Your task to perform on an android device: Go to Maps Image 0: 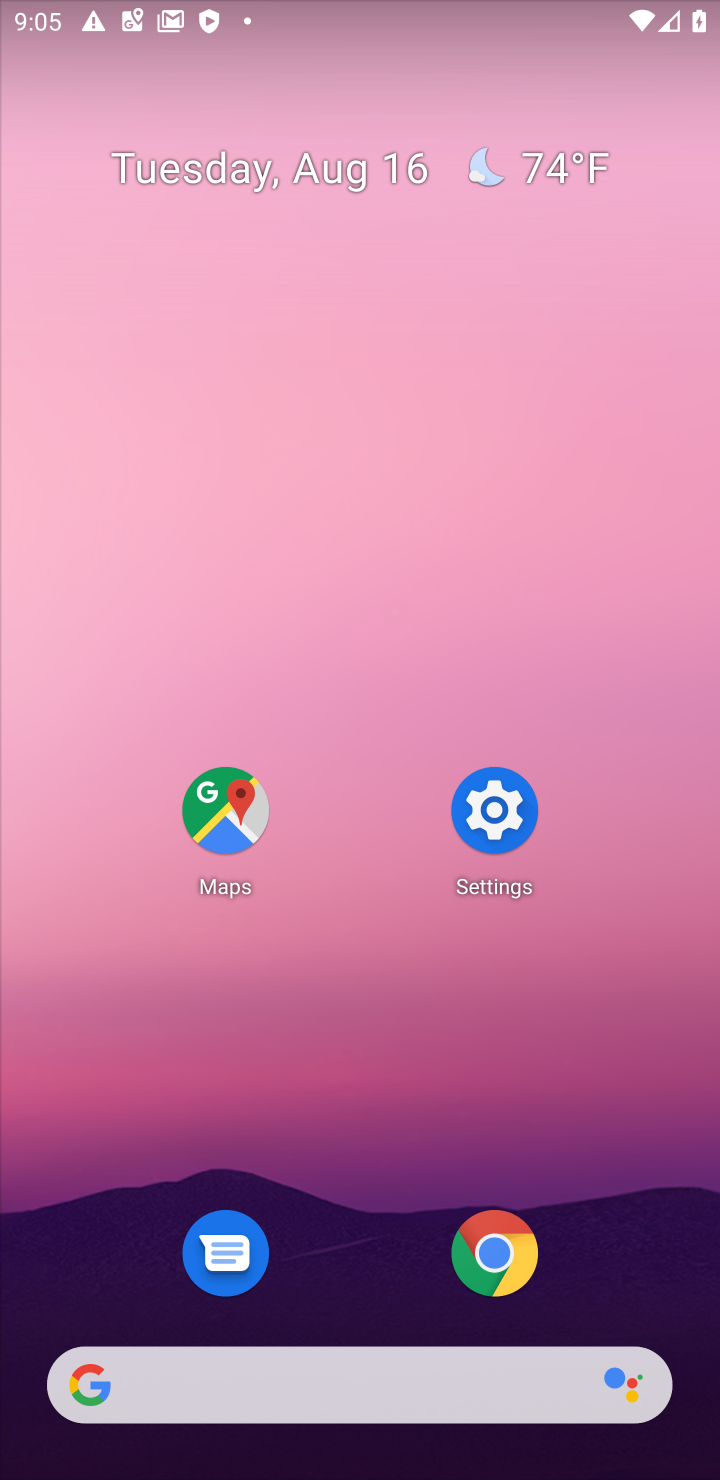
Step 0: click (216, 821)
Your task to perform on an android device: Go to Maps Image 1: 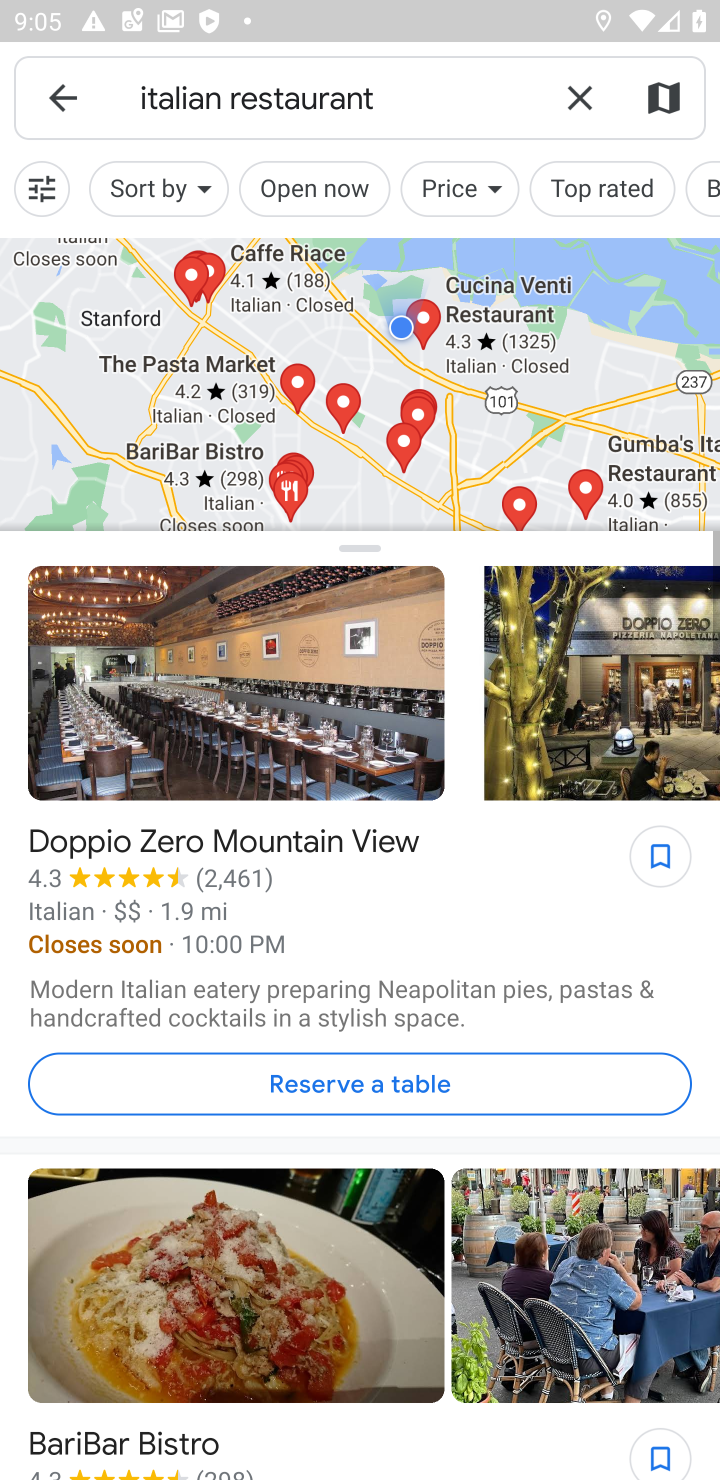
Step 1: click (576, 86)
Your task to perform on an android device: Go to Maps Image 2: 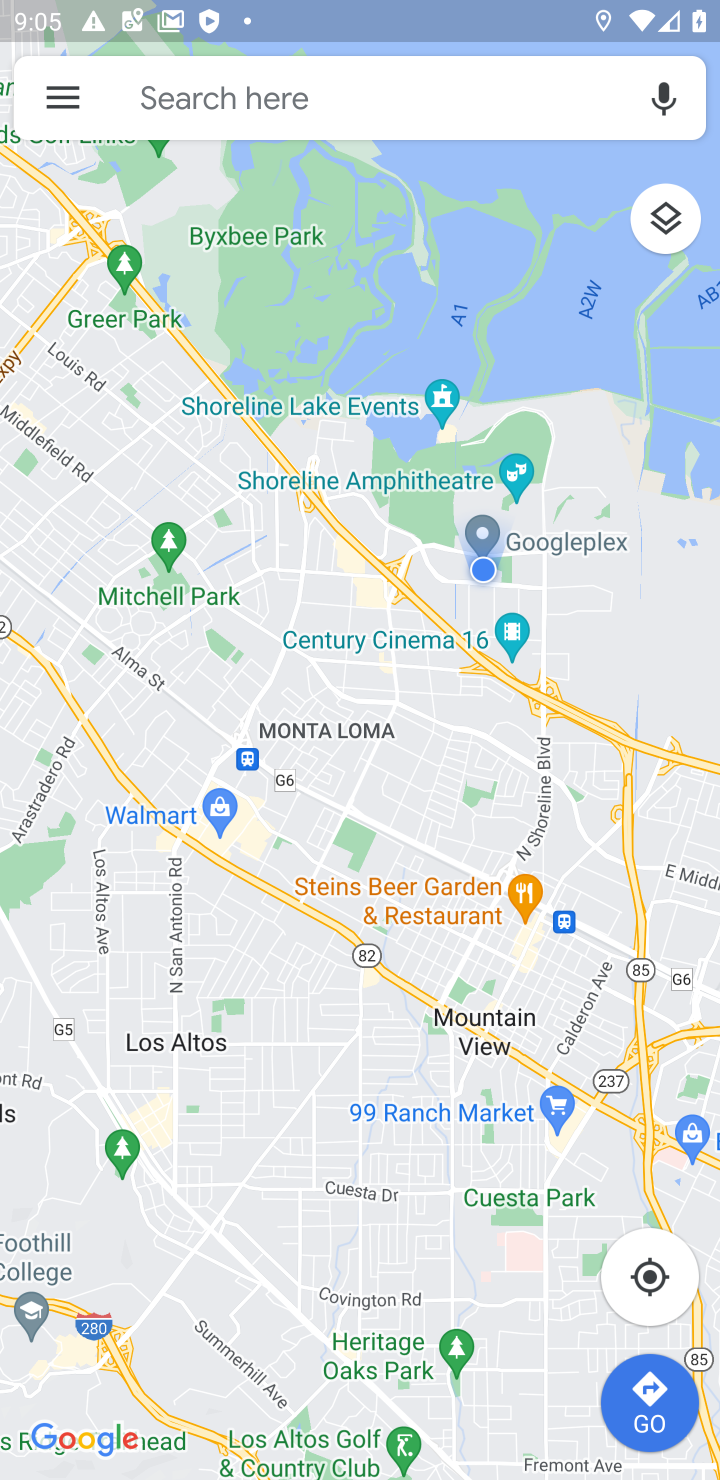
Step 2: task complete